Your task to perform on an android device: choose inbox layout in the gmail app Image 0: 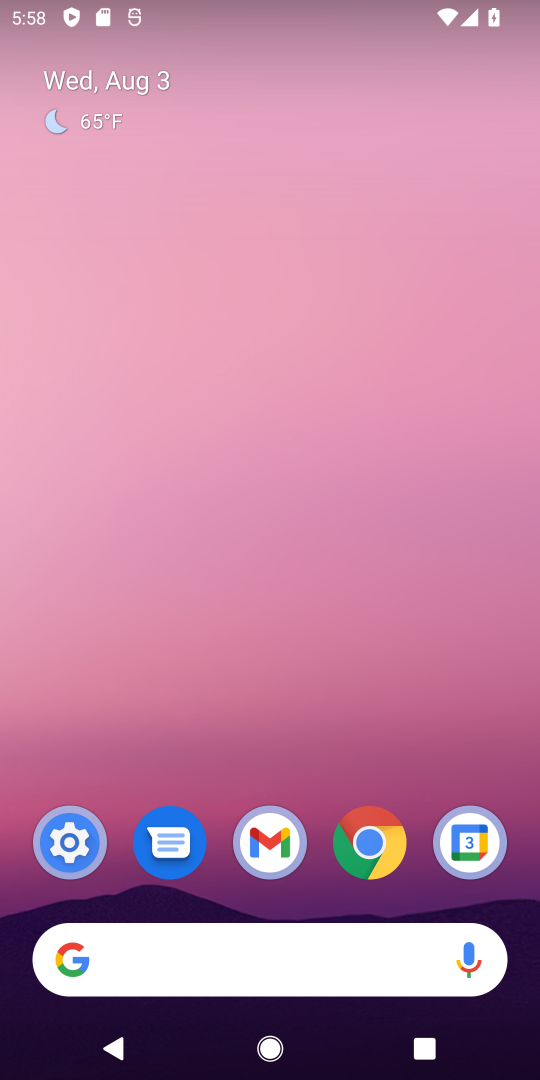
Step 0: click (282, 849)
Your task to perform on an android device: choose inbox layout in the gmail app Image 1: 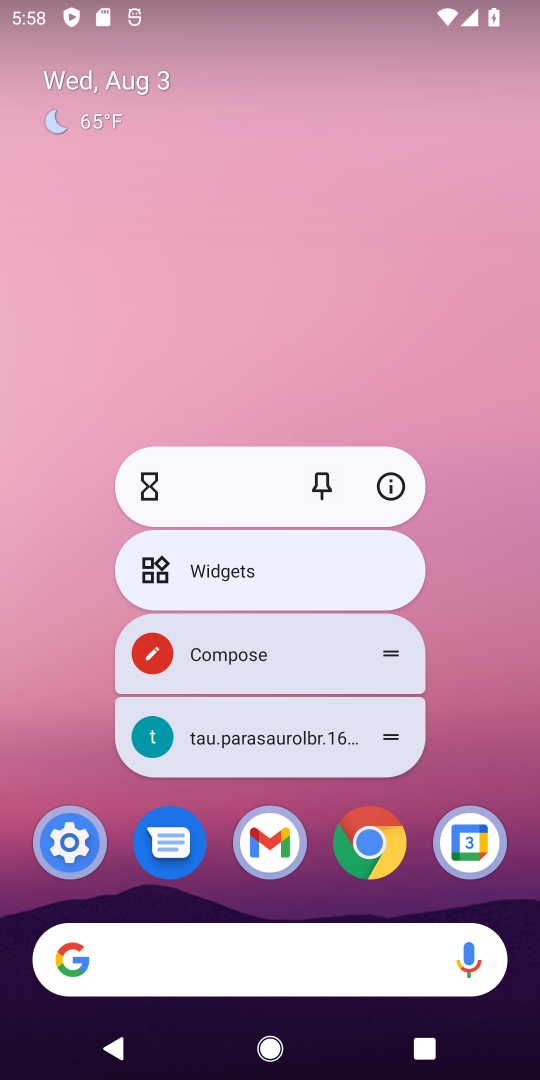
Step 1: click (282, 849)
Your task to perform on an android device: choose inbox layout in the gmail app Image 2: 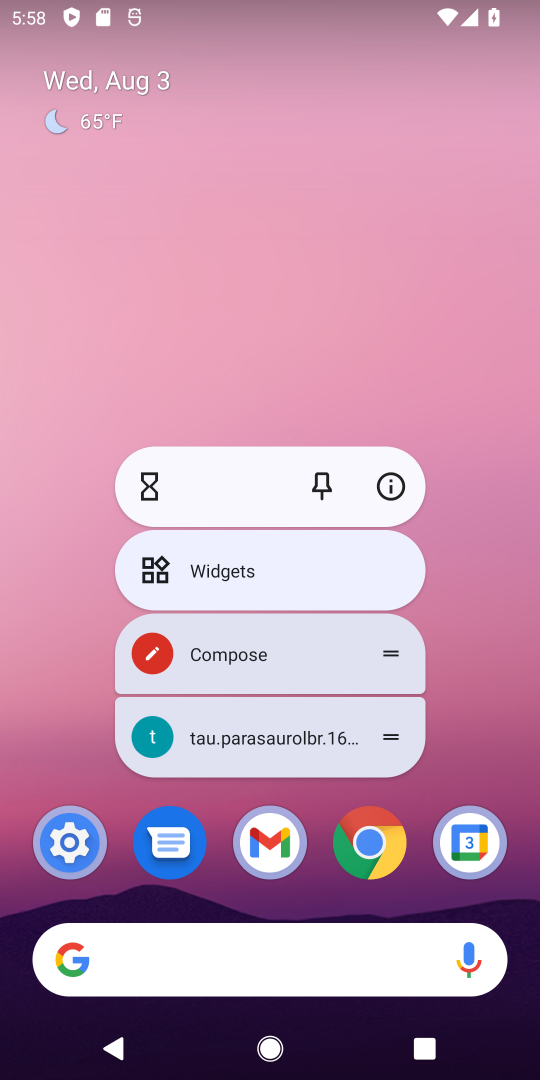
Step 2: click (285, 851)
Your task to perform on an android device: choose inbox layout in the gmail app Image 3: 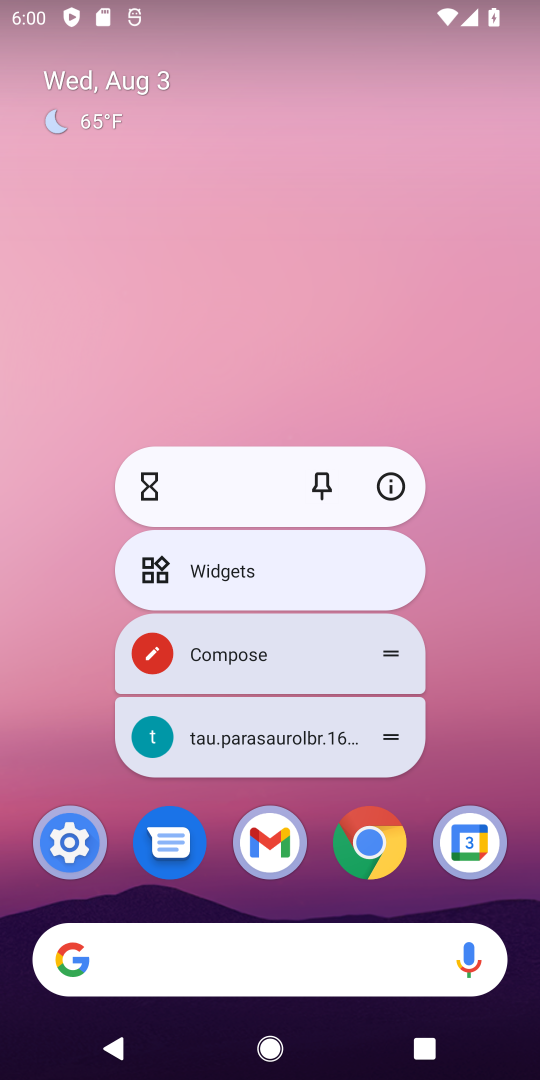
Step 3: click (267, 856)
Your task to perform on an android device: choose inbox layout in the gmail app Image 4: 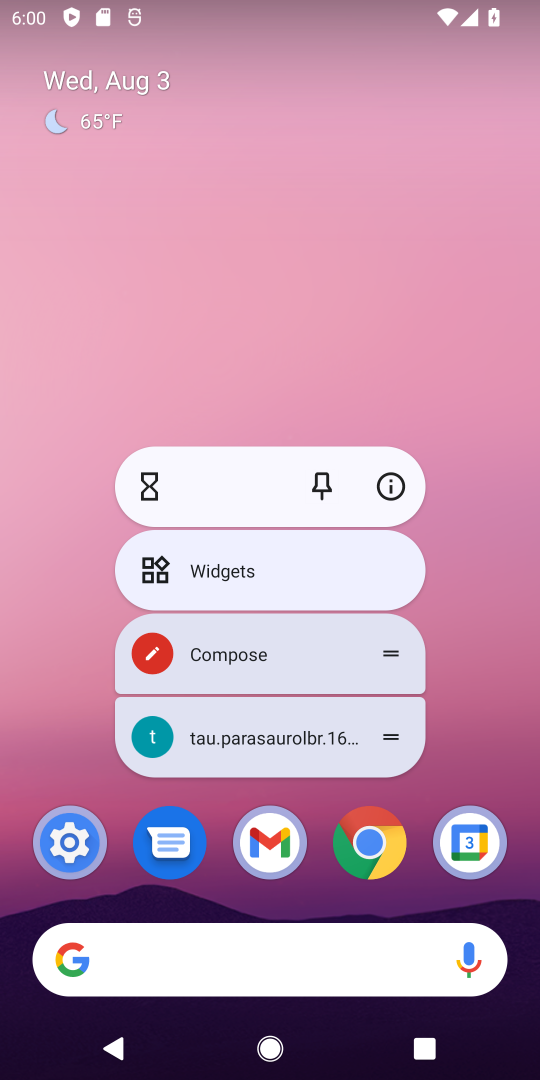
Step 4: click (278, 838)
Your task to perform on an android device: choose inbox layout in the gmail app Image 5: 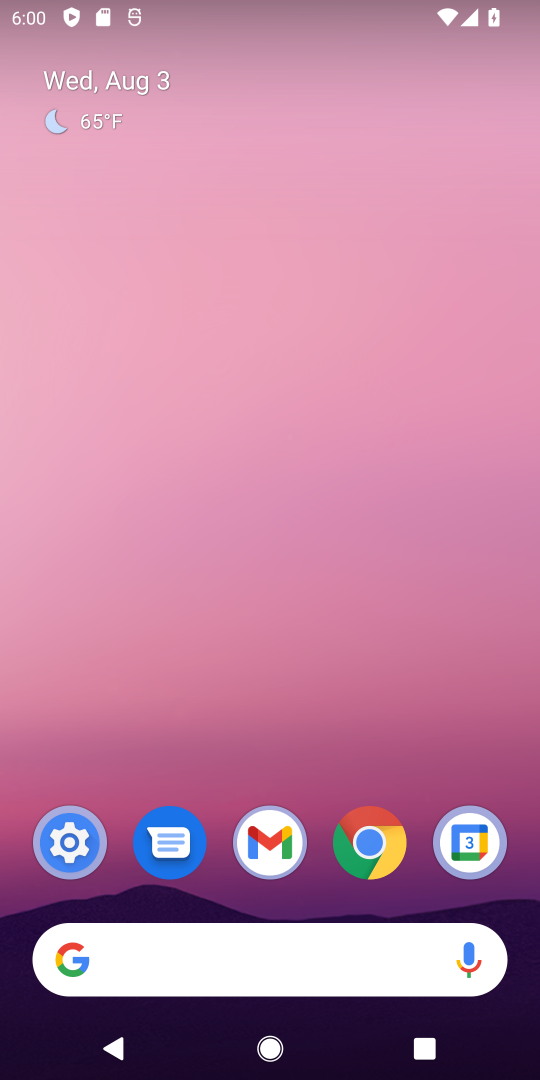
Step 5: click (273, 858)
Your task to perform on an android device: choose inbox layout in the gmail app Image 6: 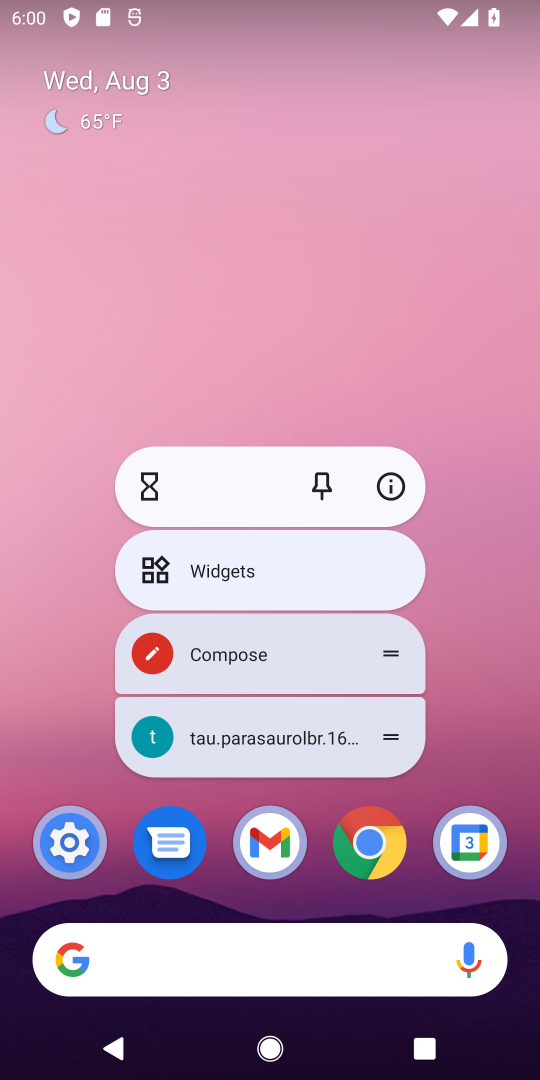
Step 6: click (273, 858)
Your task to perform on an android device: choose inbox layout in the gmail app Image 7: 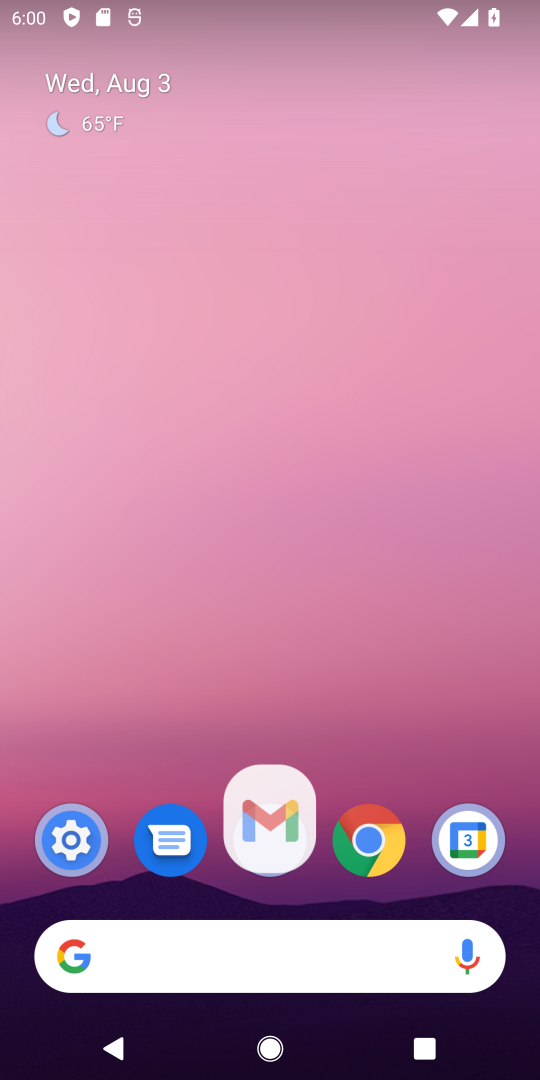
Step 7: click (273, 858)
Your task to perform on an android device: choose inbox layout in the gmail app Image 8: 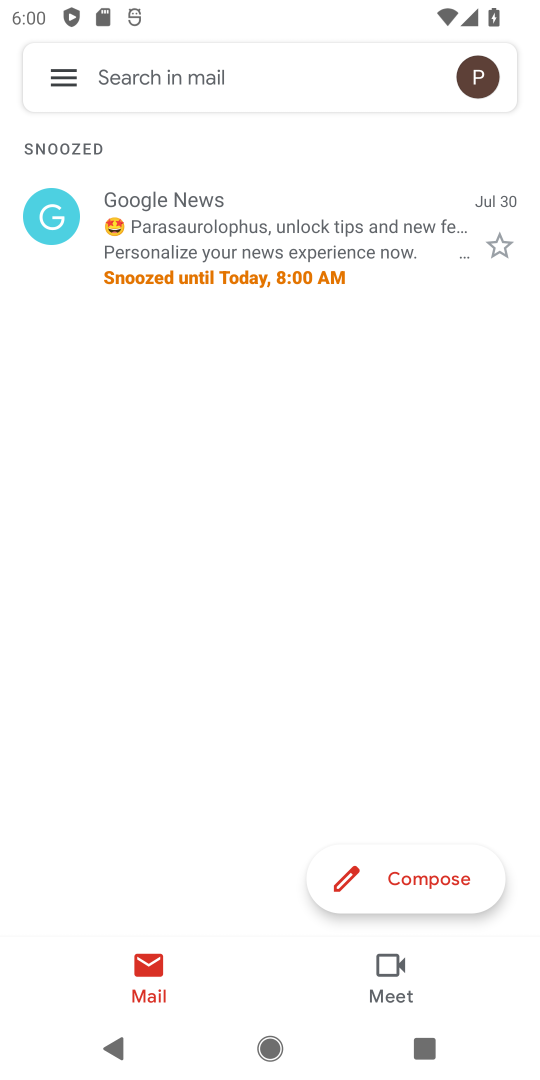
Step 8: click (273, 858)
Your task to perform on an android device: choose inbox layout in the gmail app Image 9: 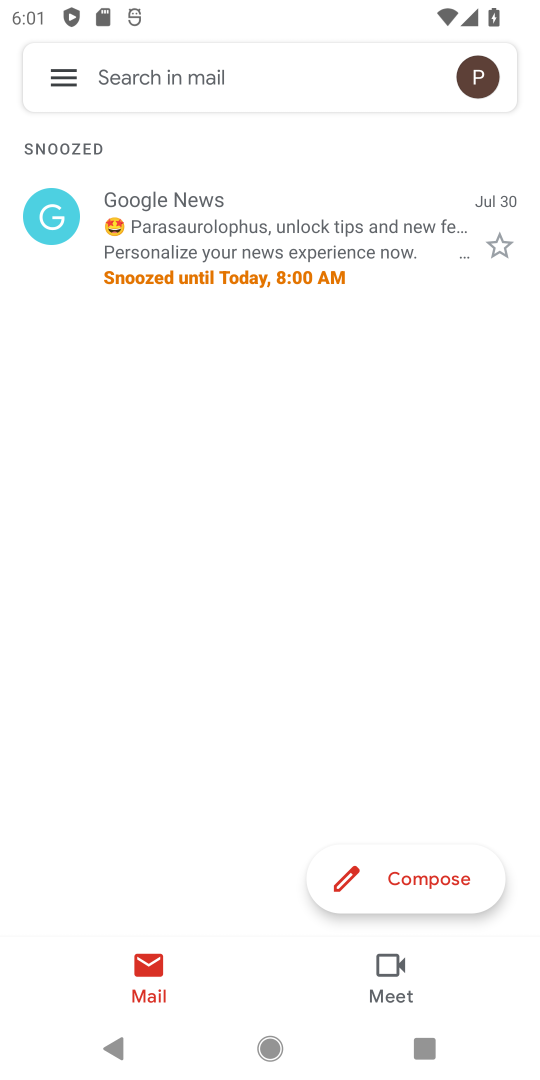
Step 9: click (38, 86)
Your task to perform on an android device: choose inbox layout in the gmail app Image 10: 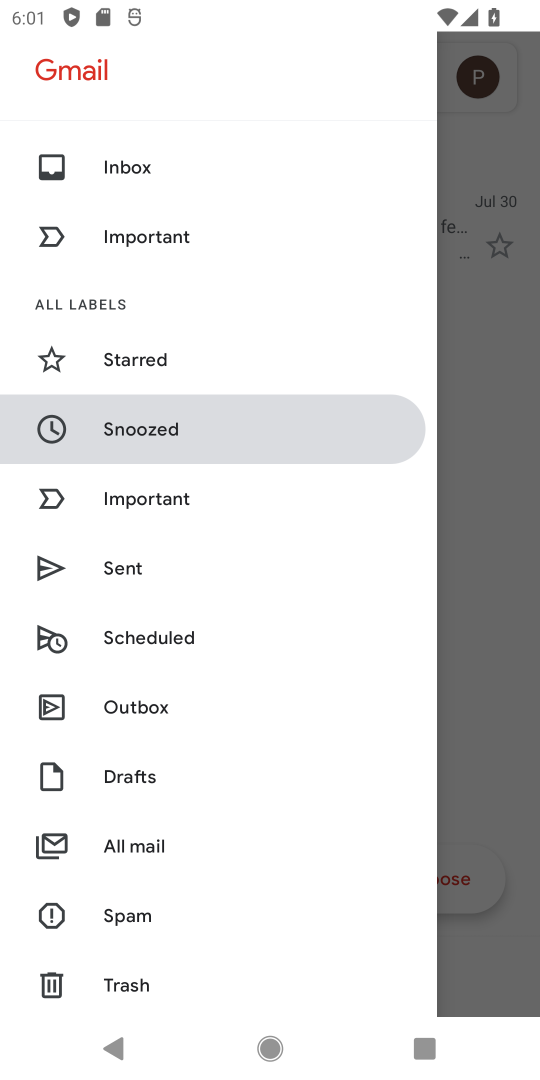
Step 10: click (151, 728)
Your task to perform on an android device: choose inbox layout in the gmail app Image 11: 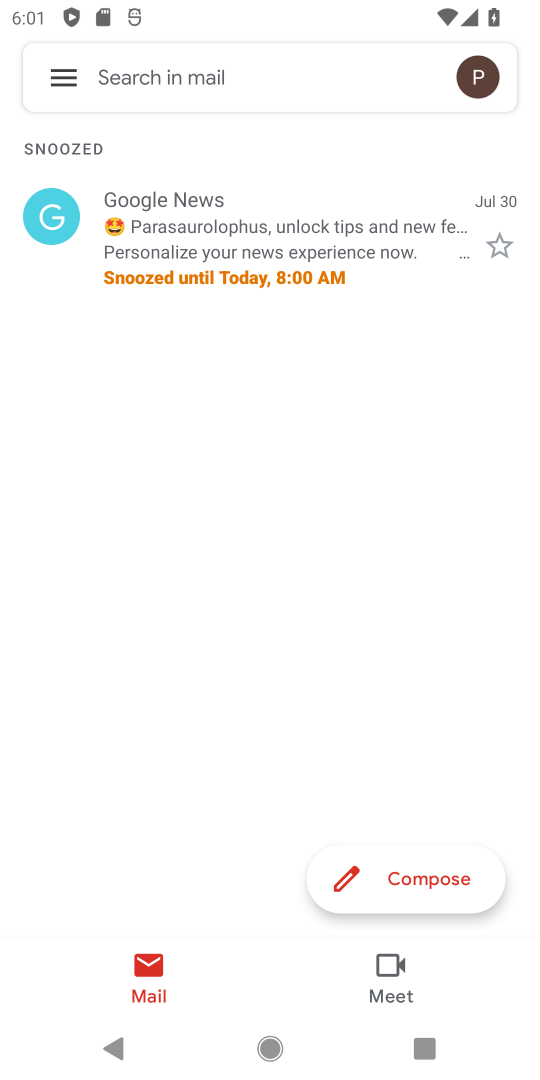
Step 11: drag from (94, 733) to (124, 139)
Your task to perform on an android device: choose inbox layout in the gmail app Image 12: 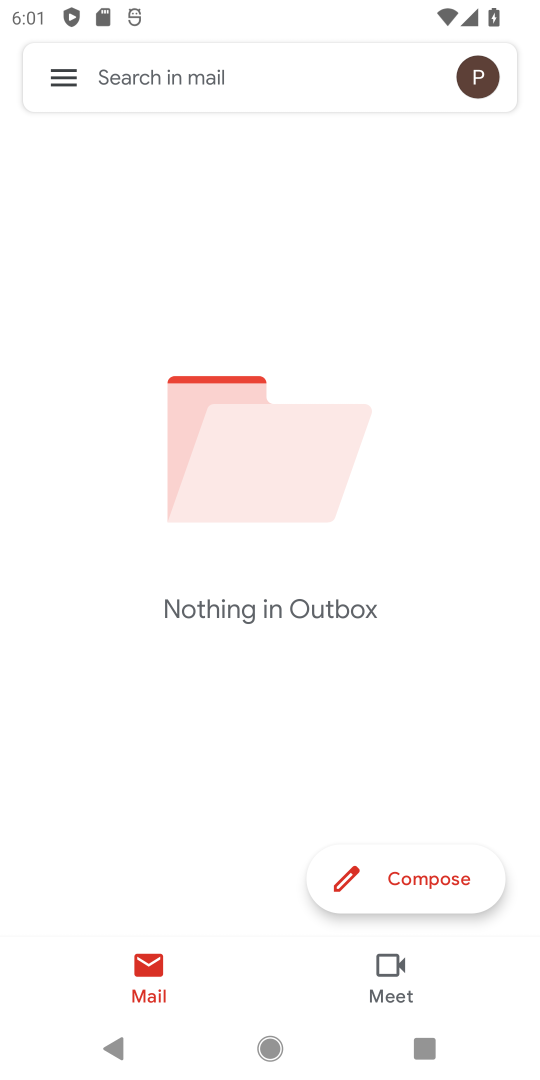
Step 12: click (74, 80)
Your task to perform on an android device: choose inbox layout in the gmail app Image 13: 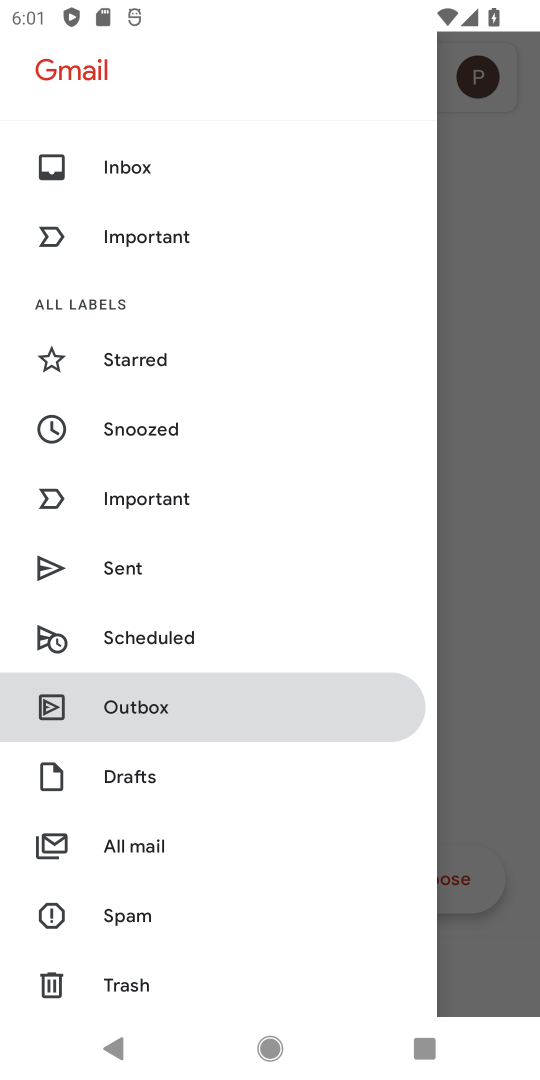
Step 13: drag from (157, 943) to (336, 105)
Your task to perform on an android device: choose inbox layout in the gmail app Image 14: 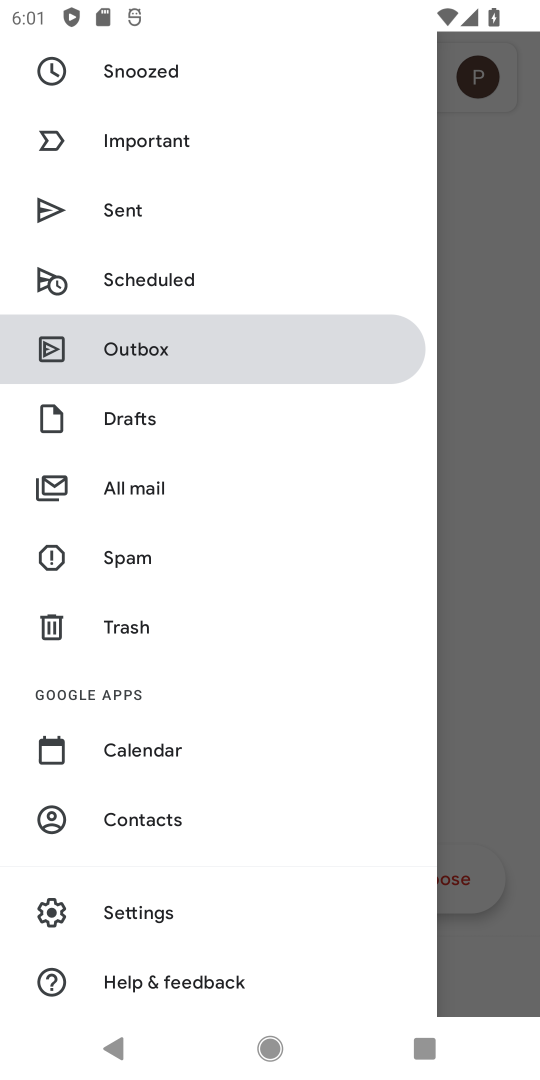
Step 14: click (197, 919)
Your task to perform on an android device: choose inbox layout in the gmail app Image 15: 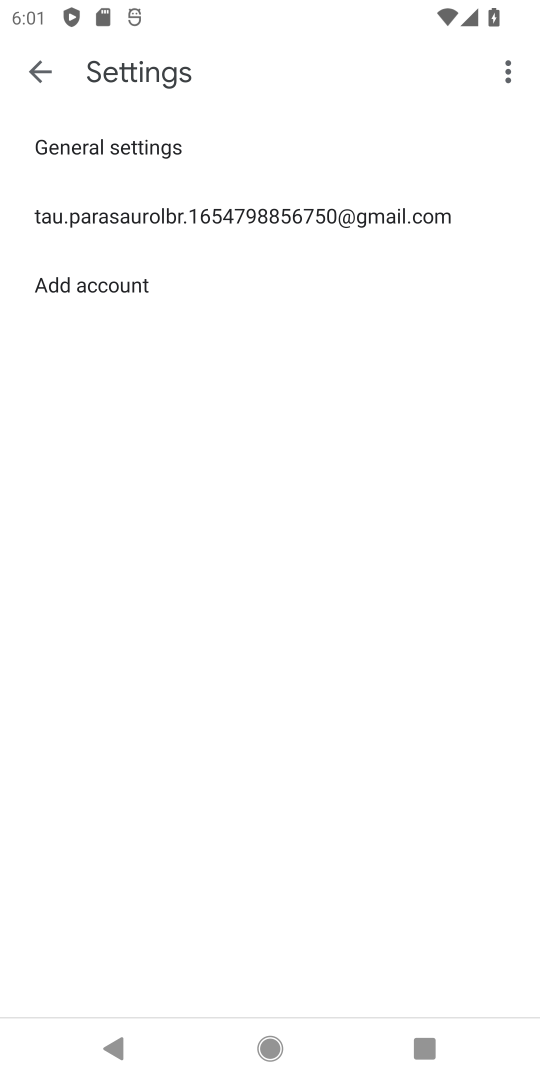
Step 15: click (141, 214)
Your task to perform on an android device: choose inbox layout in the gmail app Image 16: 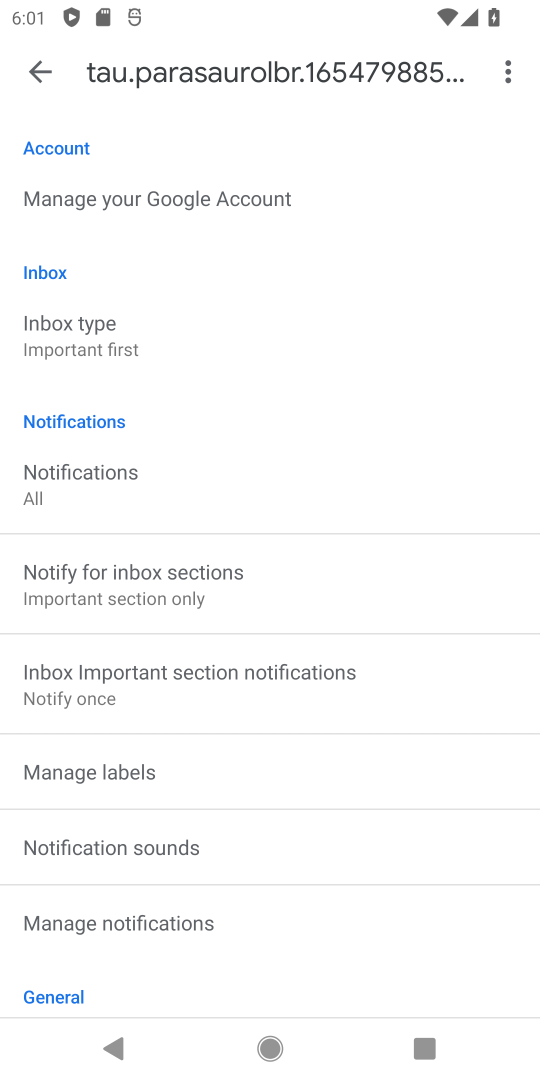
Step 16: click (89, 329)
Your task to perform on an android device: choose inbox layout in the gmail app Image 17: 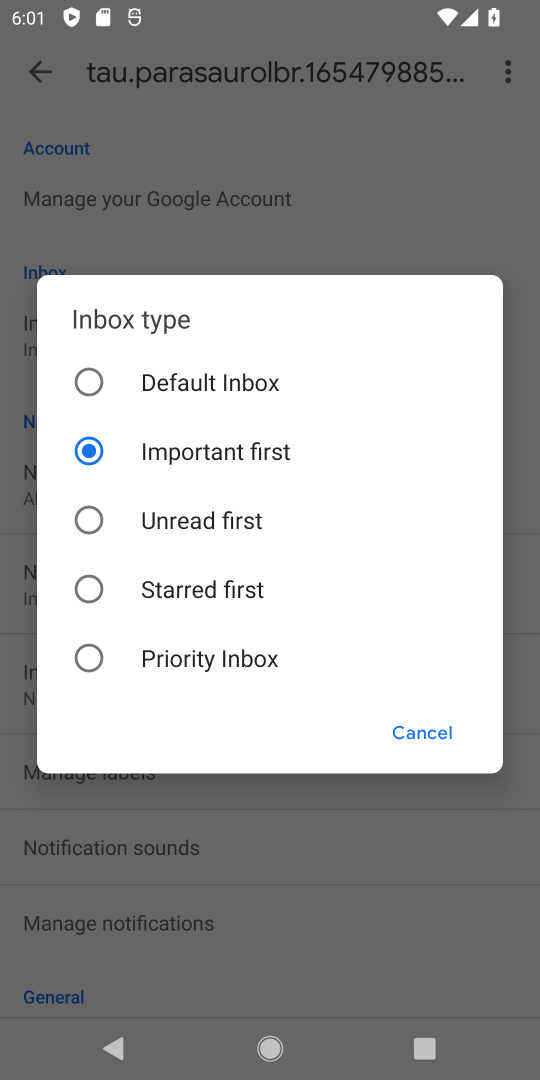
Step 17: click (239, 379)
Your task to perform on an android device: choose inbox layout in the gmail app Image 18: 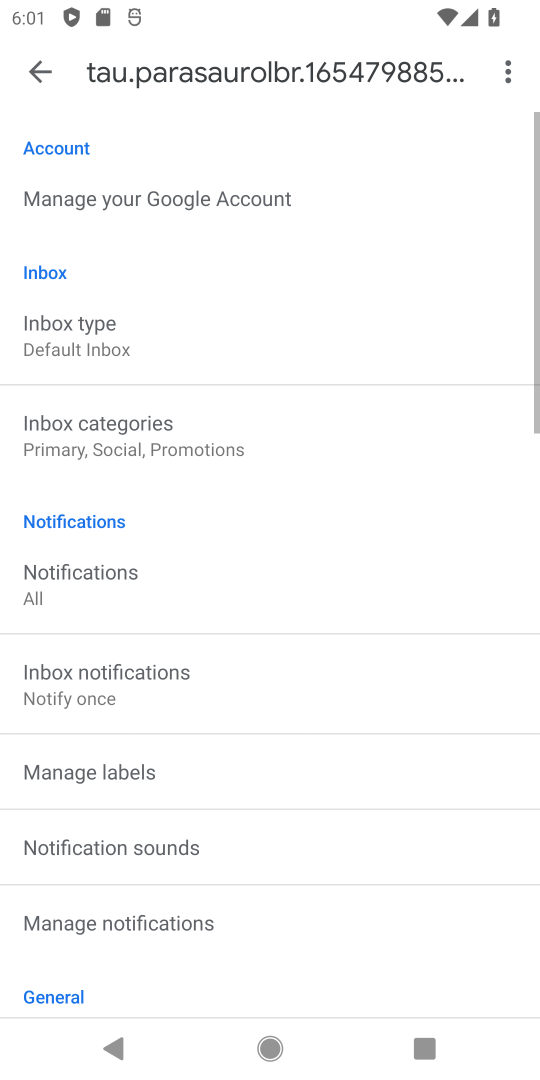
Step 18: task complete